Your task to perform on an android device: add a contact in the contacts app Image 0: 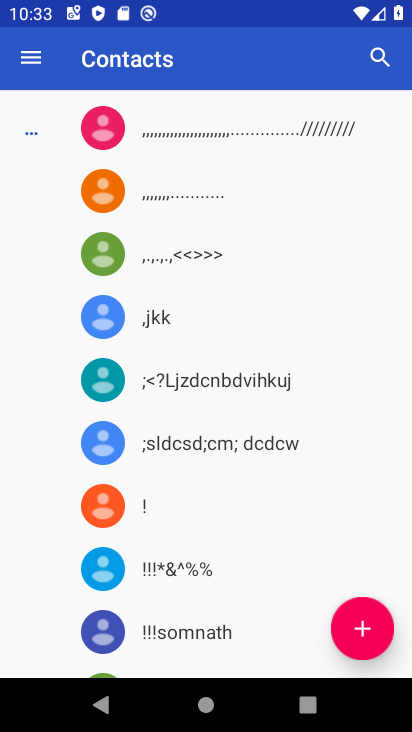
Step 0: click (357, 621)
Your task to perform on an android device: add a contact in the contacts app Image 1: 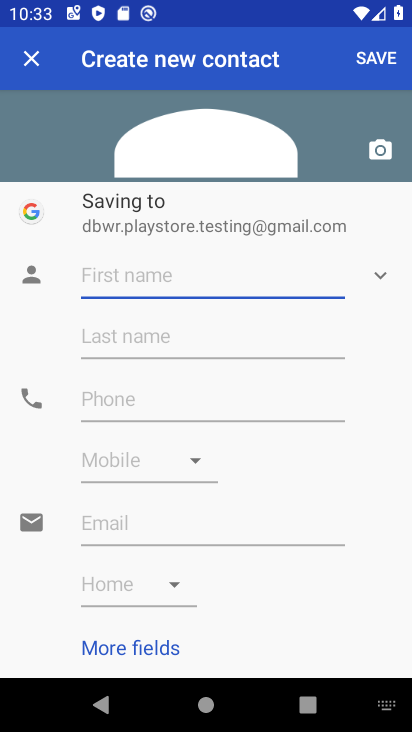
Step 1: type "hgfcj"
Your task to perform on an android device: add a contact in the contacts app Image 2: 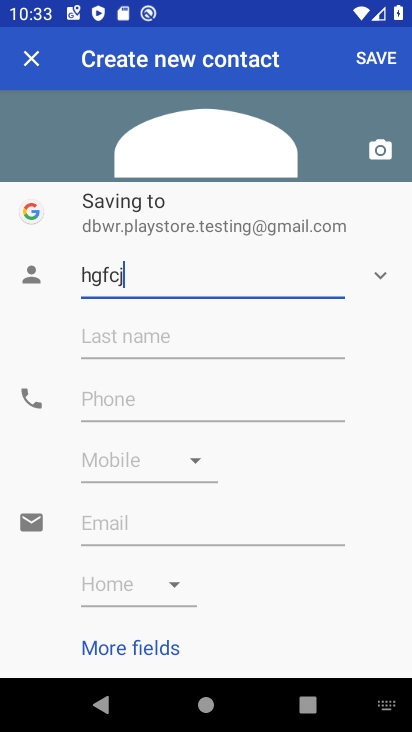
Step 2: click (162, 396)
Your task to perform on an android device: add a contact in the contacts app Image 3: 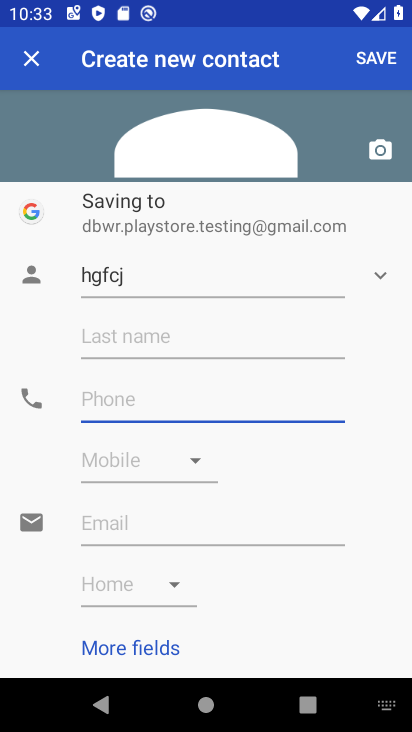
Step 3: type "87"
Your task to perform on an android device: add a contact in the contacts app Image 4: 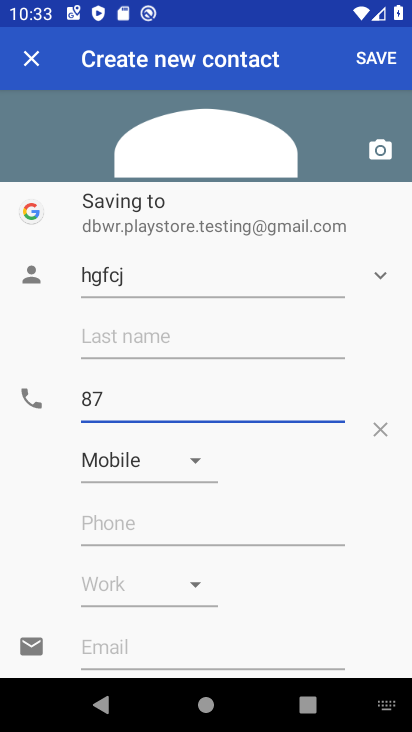
Step 4: click (373, 63)
Your task to perform on an android device: add a contact in the contacts app Image 5: 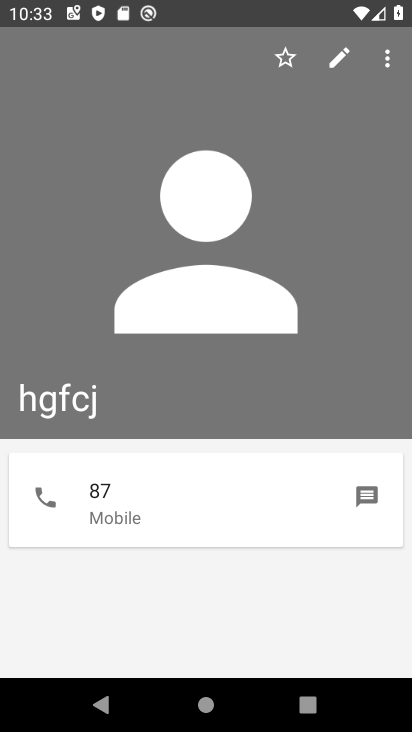
Step 5: task complete